Your task to perform on an android device: turn pop-ups on in chrome Image 0: 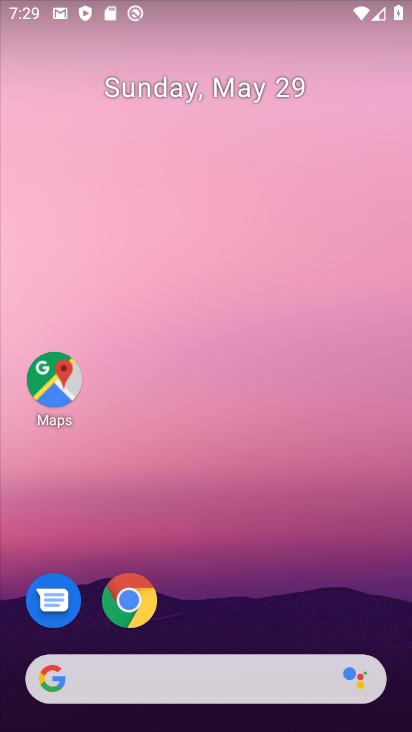
Step 0: drag from (327, 549) to (309, 156)
Your task to perform on an android device: turn pop-ups on in chrome Image 1: 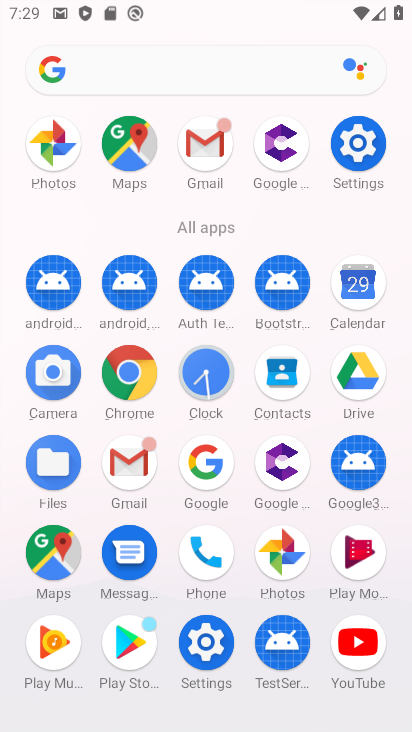
Step 1: click (126, 385)
Your task to perform on an android device: turn pop-ups on in chrome Image 2: 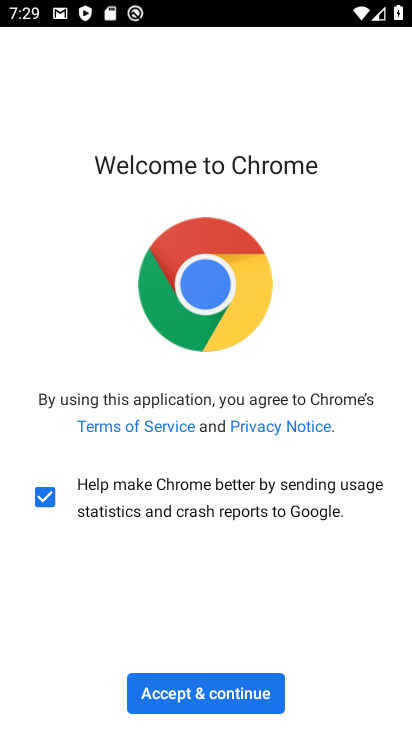
Step 2: click (219, 704)
Your task to perform on an android device: turn pop-ups on in chrome Image 3: 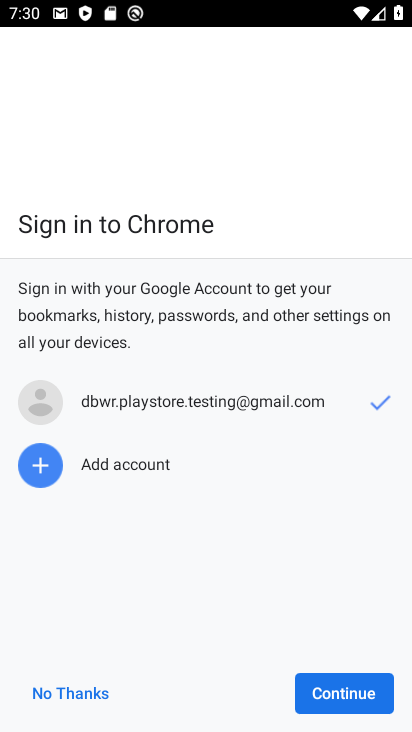
Step 3: click (320, 696)
Your task to perform on an android device: turn pop-ups on in chrome Image 4: 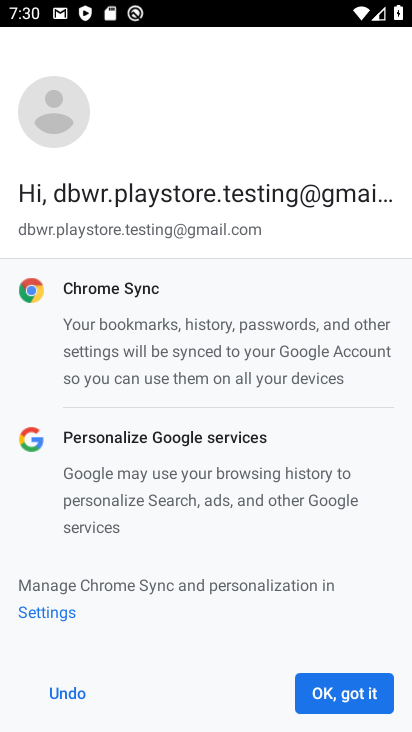
Step 4: click (320, 701)
Your task to perform on an android device: turn pop-ups on in chrome Image 5: 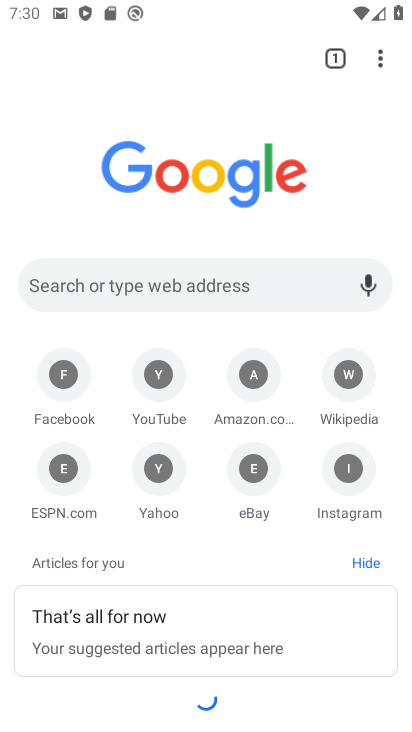
Step 5: drag from (387, 78) to (198, 491)
Your task to perform on an android device: turn pop-ups on in chrome Image 6: 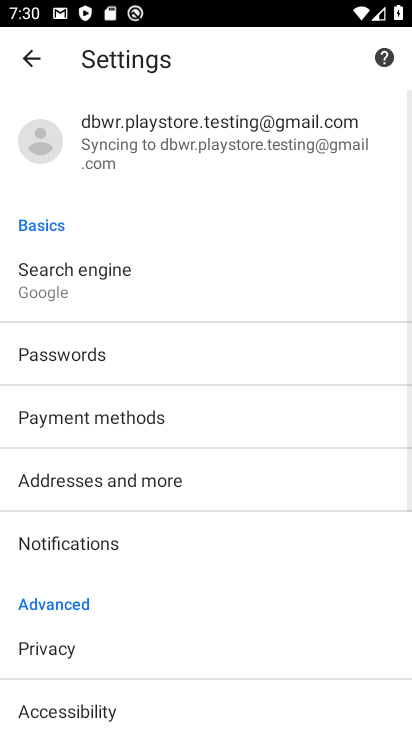
Step 6: drag from (220, 652) to (238, 293)
Your task to perform on an android device: turn pop-ups on in chrome Image 7: 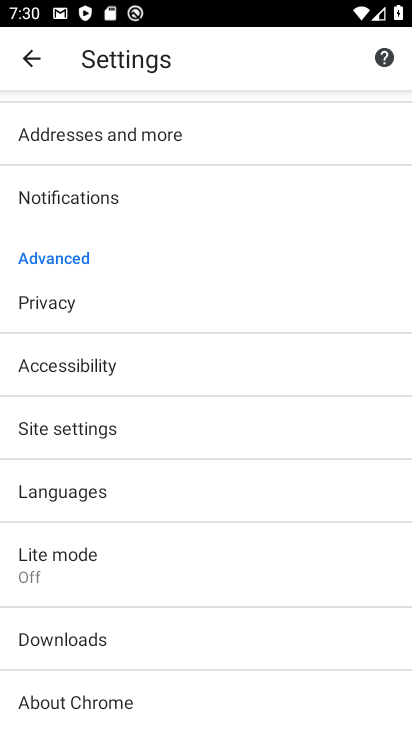
Step 7: drag from (233, 599) to (264, 297)
Your task to perform on an android device: turn pop-ups on in chrome Image 8: 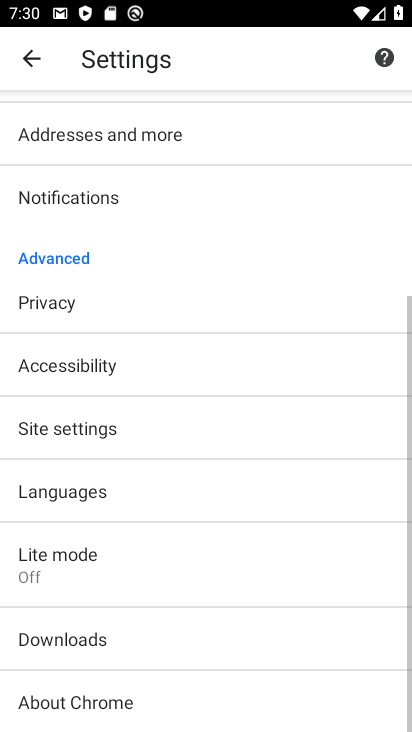
Step 8: click (148, 427)
Your task to perform on an android device: turn pop-ups on in chrome Image 9: 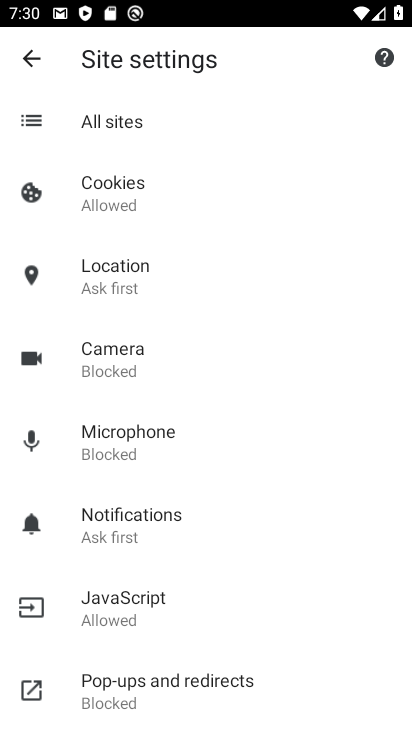
Step 9: drag from (177, 607) to (211, 389)
Your task to perform on an android device: turn pop-ups on in chrome Image 10: 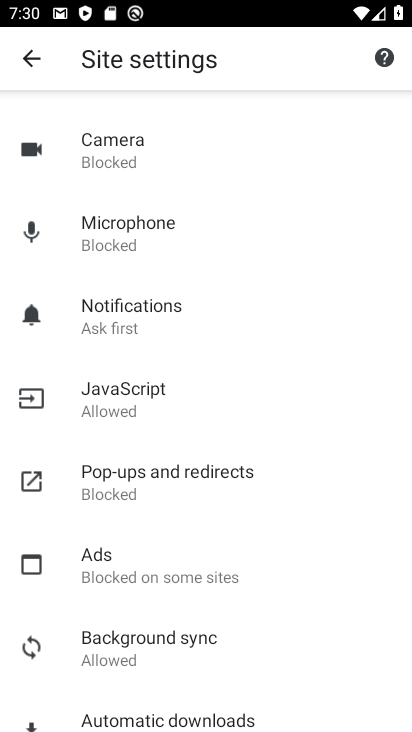
Step 10: click (213, 455)
Your task to perform on an android device: turn pop-ups on in chrome Image 11: 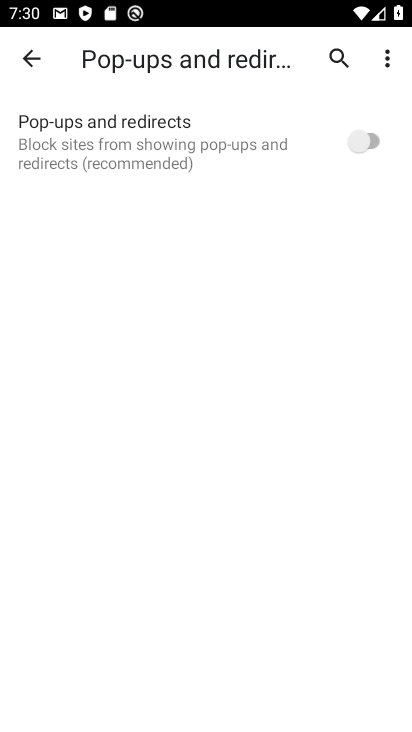
Step 11: click (370, 145)
Your task to perform on an android device: turn pop-ups on in chrome Image 12: 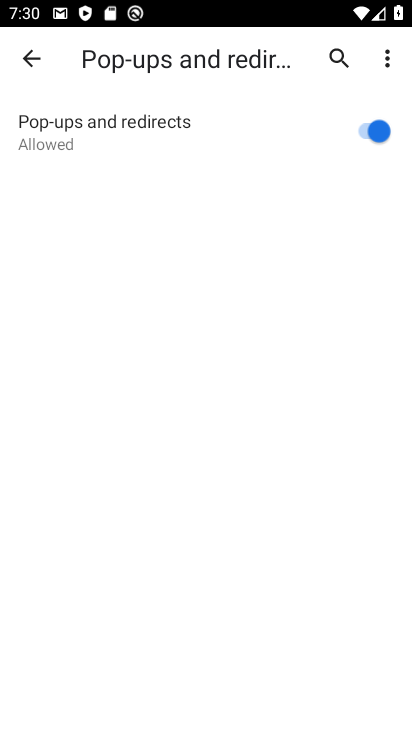
Step 12: task complete